Your task to perform on an android device: Empty the shopping cart on bestbuy.com. Image 0: 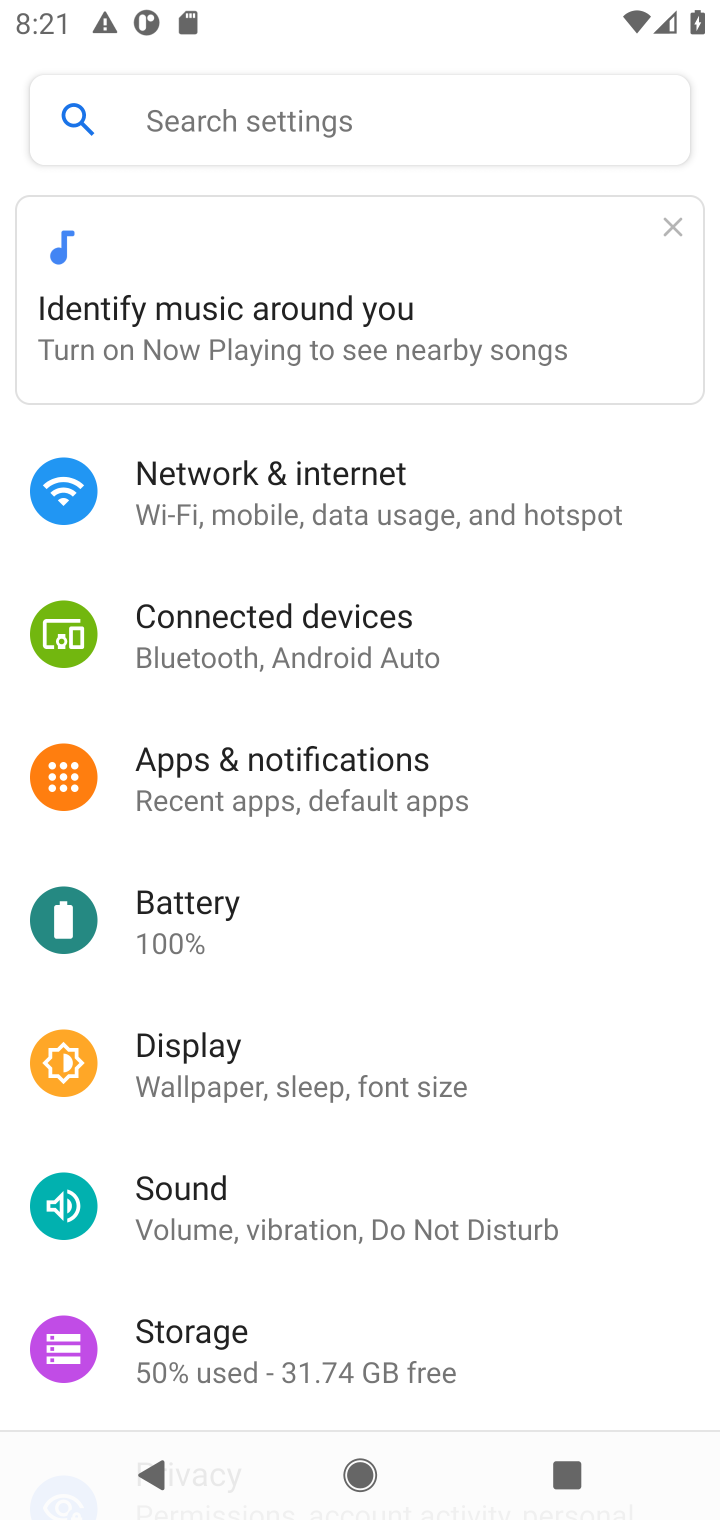
Step 0: press home button
Your task to perform on an android device: Empty the shopping cart on bestbuy.com. Image 1: 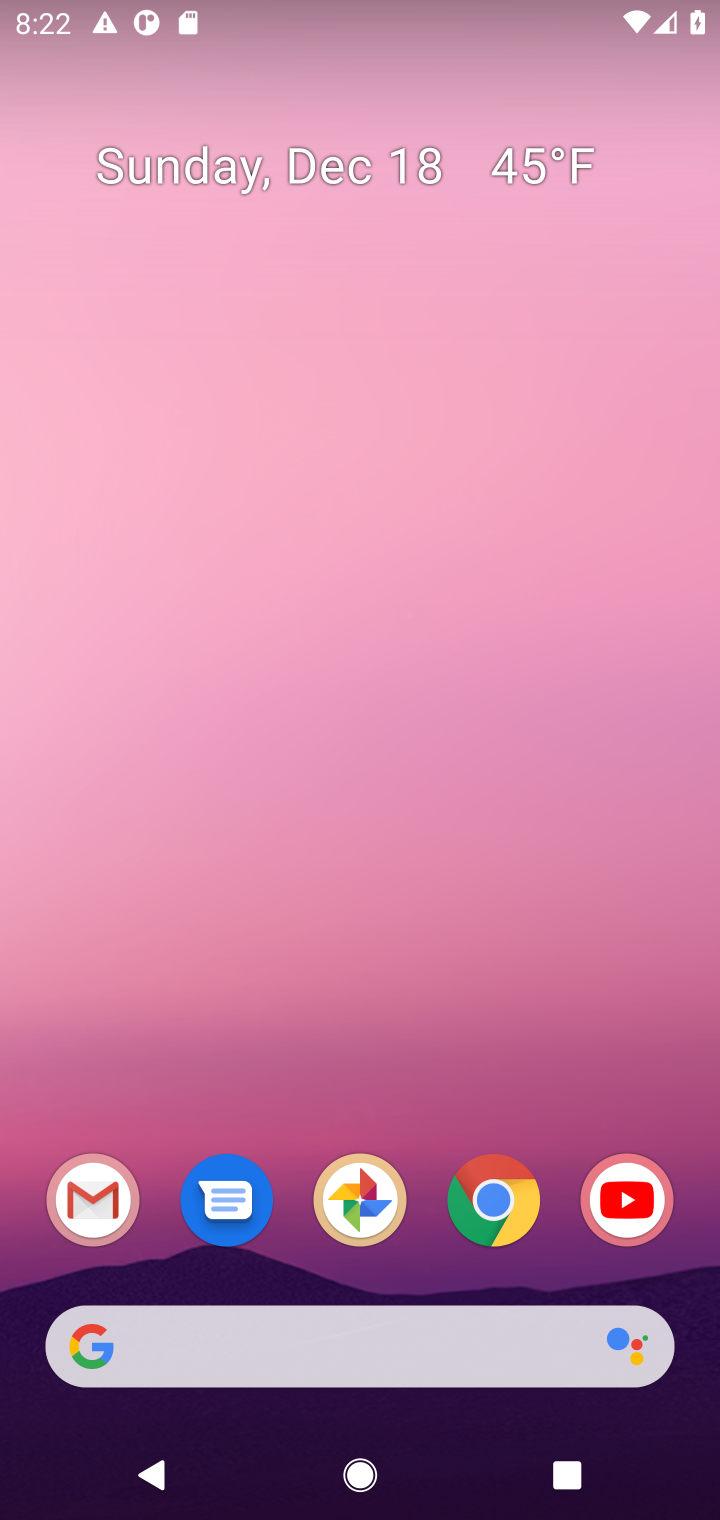
Step 1: click (477, 1209)
Your task to perform on an android device: Empty the shopping cart on bestbuy.com. Image 2: 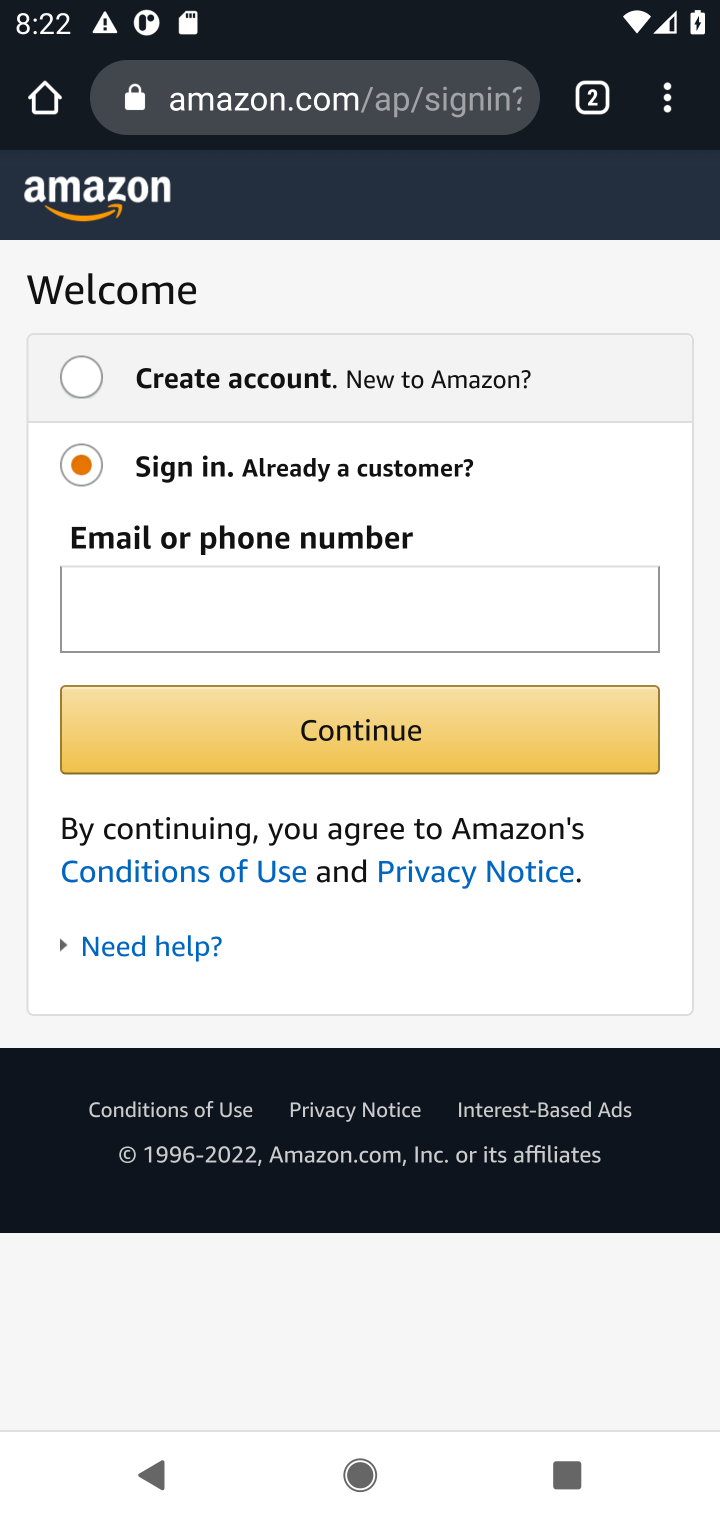
Step 2: click (275, 104)
Your task to perform on an android device: Empty the shopping cart on bestbuy.com. Image 3: 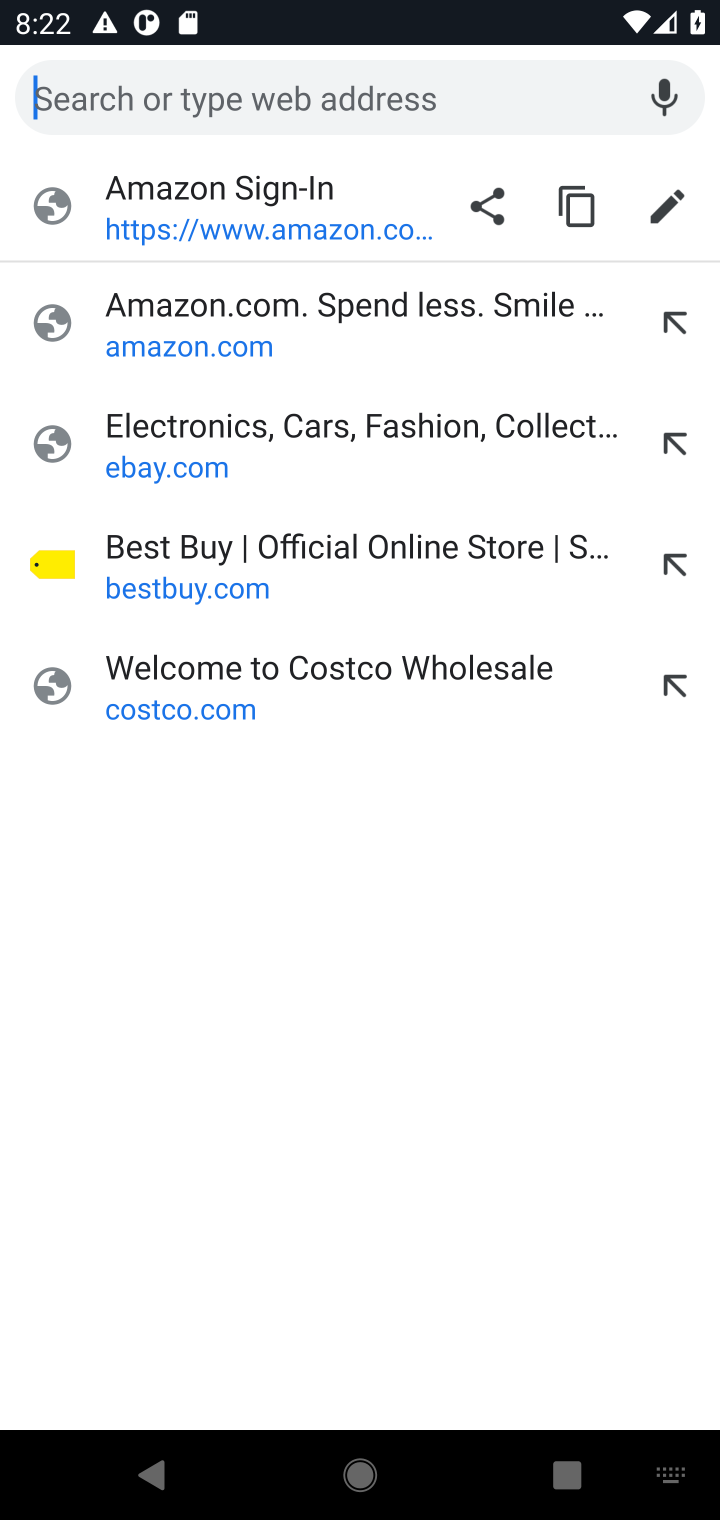
Step 3: click (129, 549)
Your task to perform on an android device: Empty the shopping cart on bestbuy.com. Image 4: 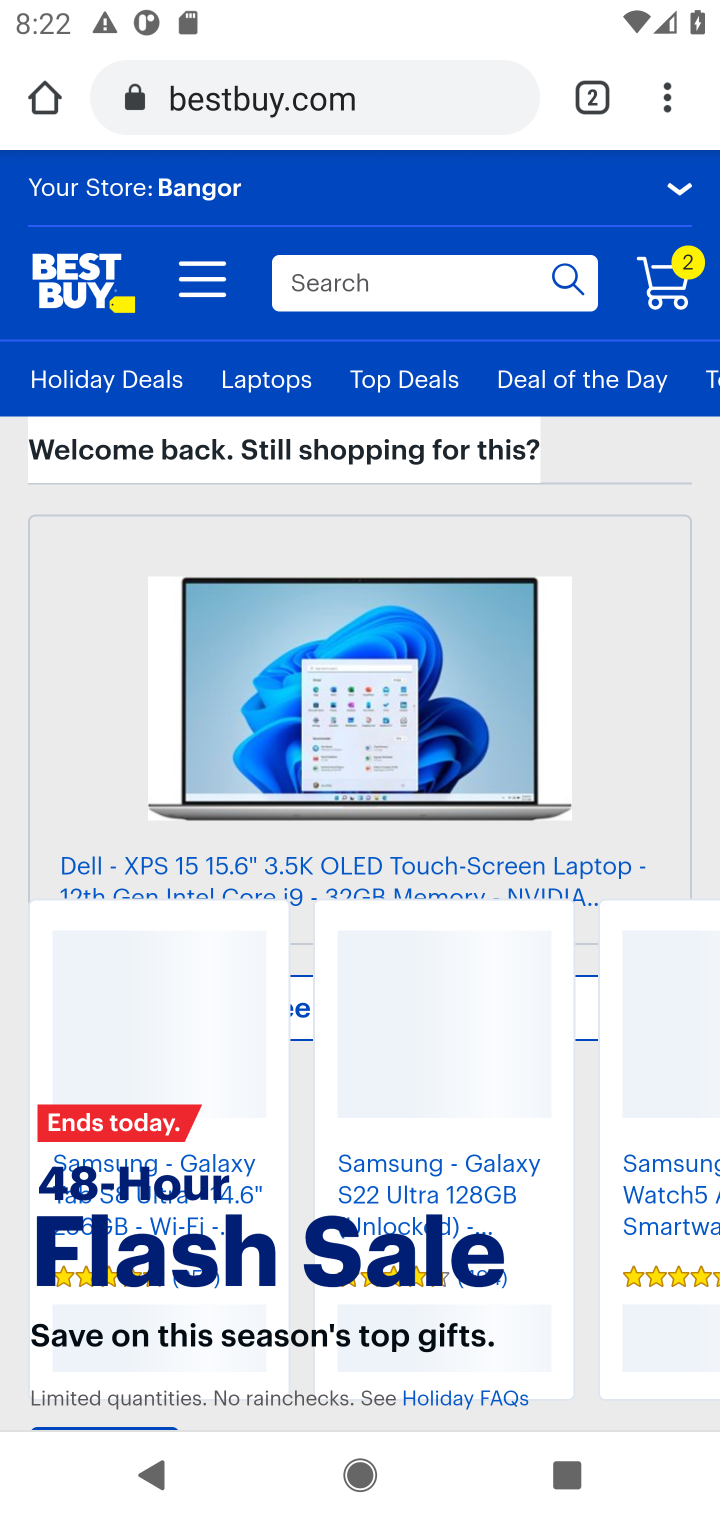
Step 4: click (663, 289)
Your task to perform on an android device: Empty the shopping cart on bestbuy.com. Image 5: 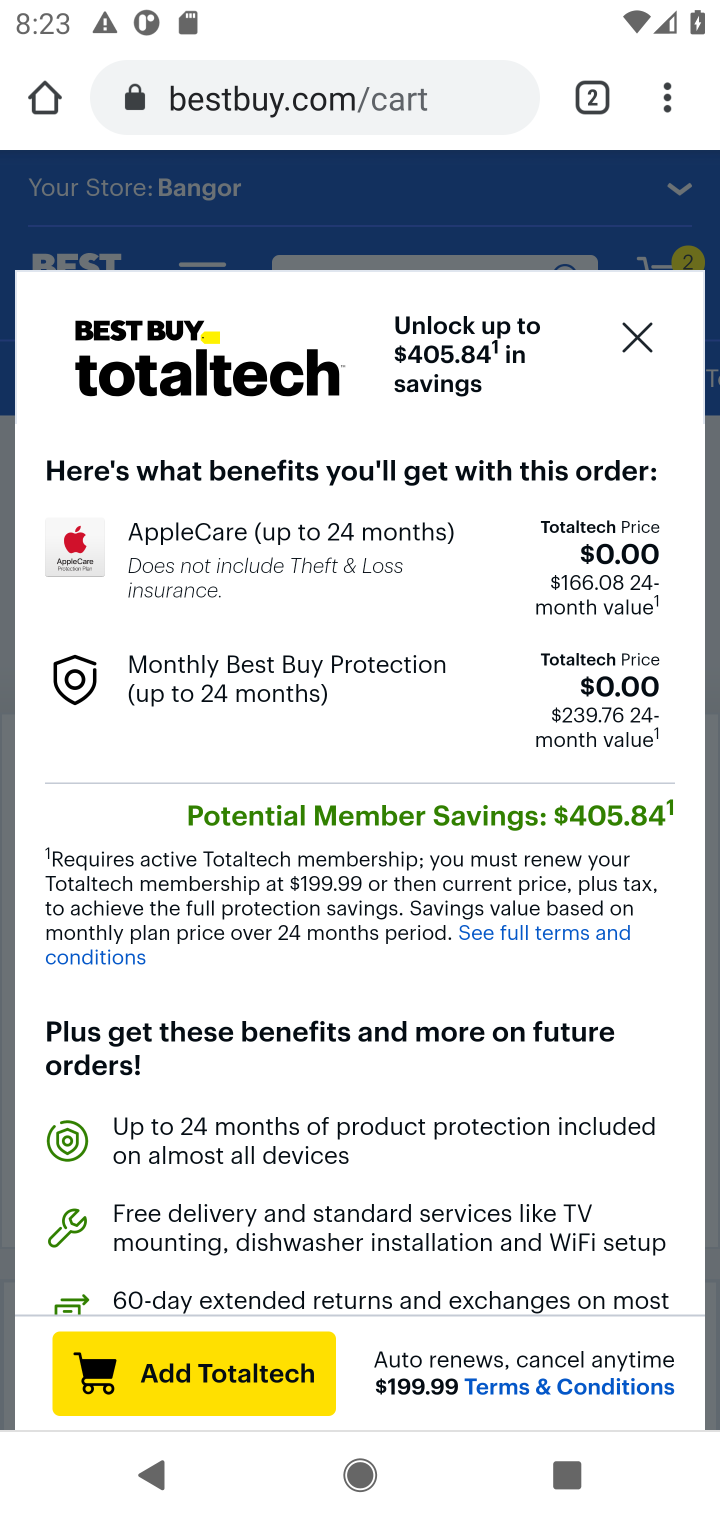
Step 5: click (637, 331)
Your task to perform on an android device: Empty the shopping cart on bestbuy.com. Image 6: 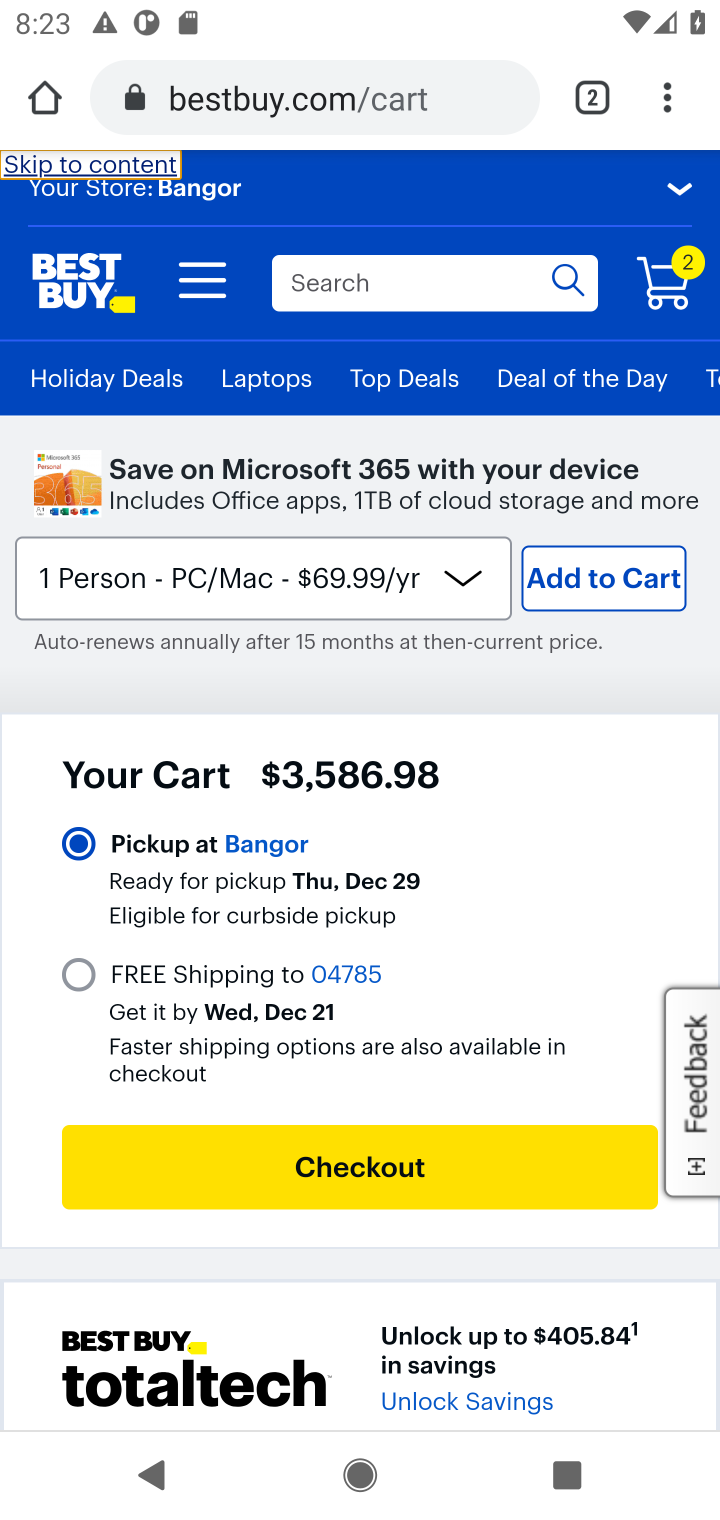
Step 6: drag from (448, 855) to (422, 196)
Your task to perform on an android device: Empty the shopping cart on bestbuy.com. Image 7: 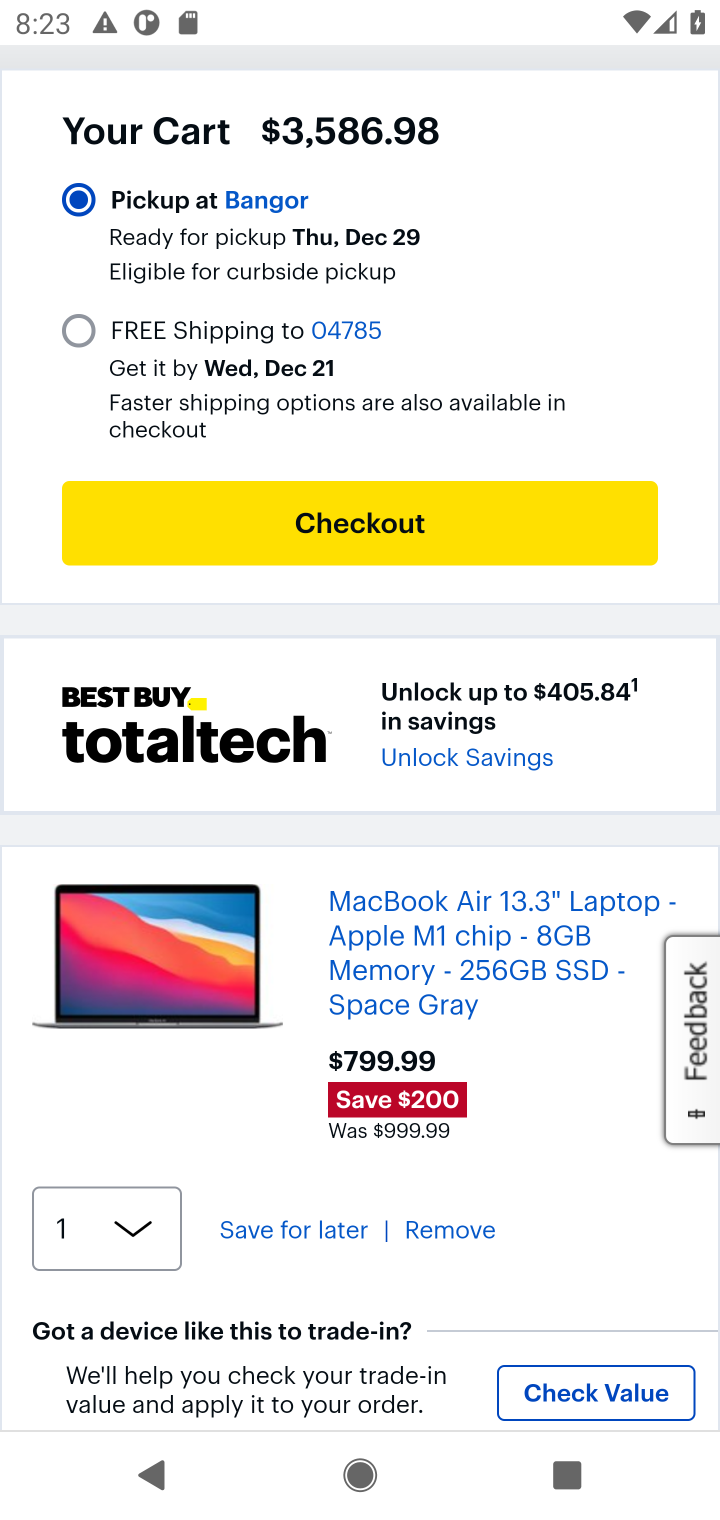
Step 7: click (439, 1234)
Your task to perform on an android device: Empty the shopping cart on bestbuy.com. Image 8: 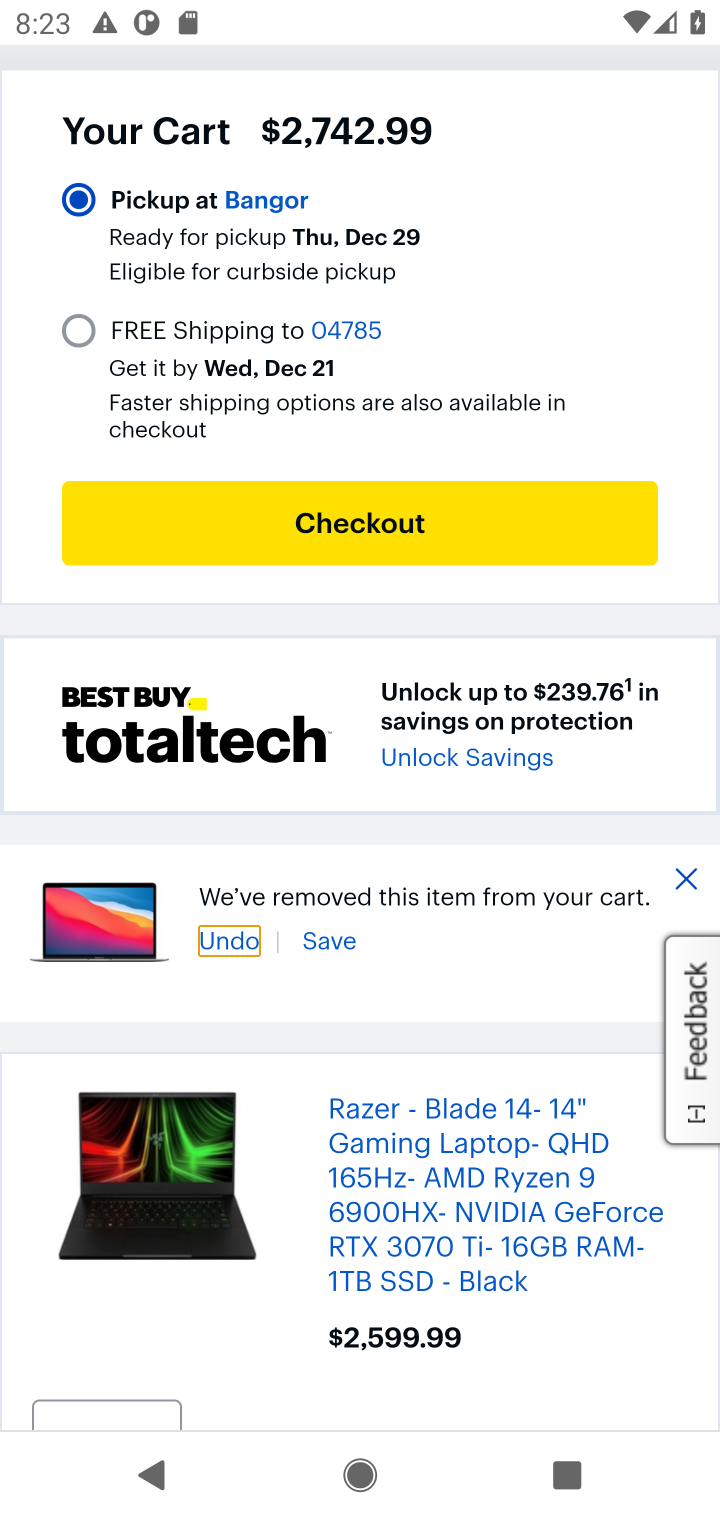
Step 8: drag from (404, 1168) to (403, 725)
Your task to perform on an android device: Empty the shopping cart on bestbuy.com. Image 9: 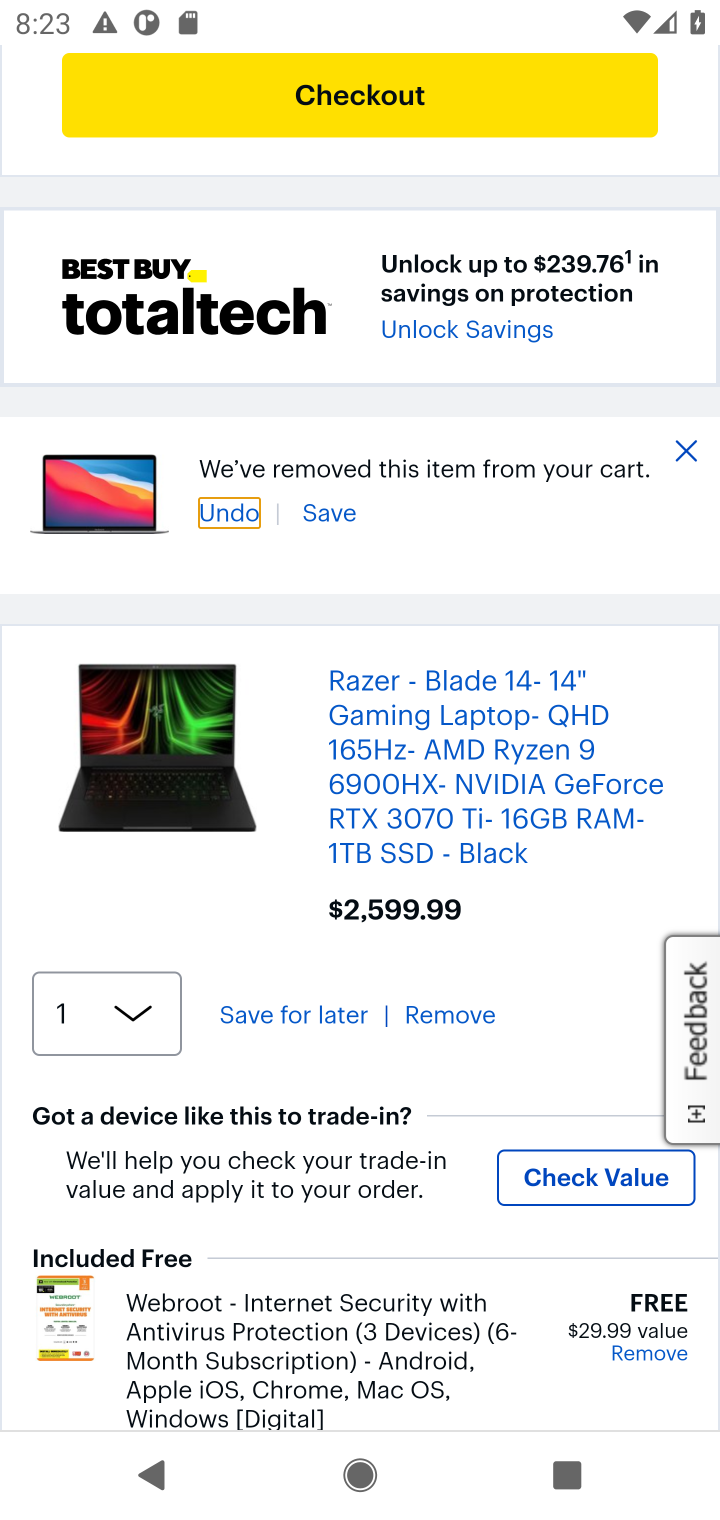
Step 9: click (425, 999)
Your task to perform on an android device: Empty the shopping cart on bestbuy.com. Image 10: 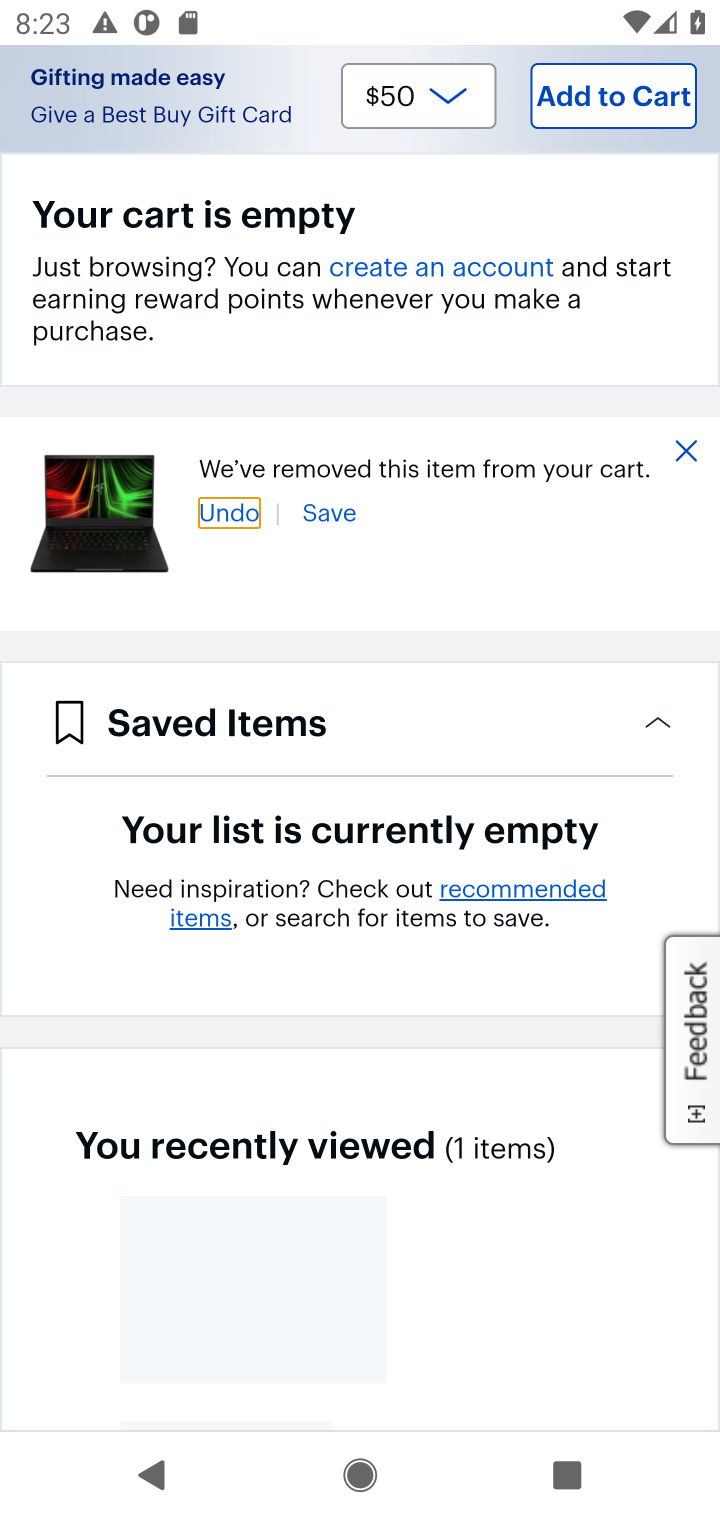
Step 10: task complete